Your task to perform on an android device: Open ESPN.com Image 0: 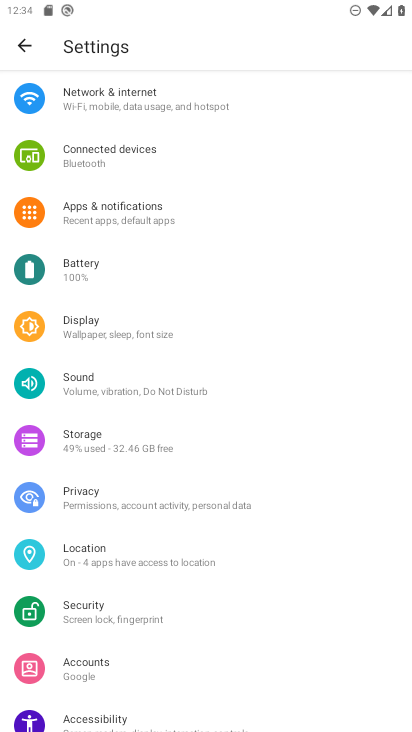
Step 0: press home button
Your task to perform on an android device: Open ESPN.com Image 1: 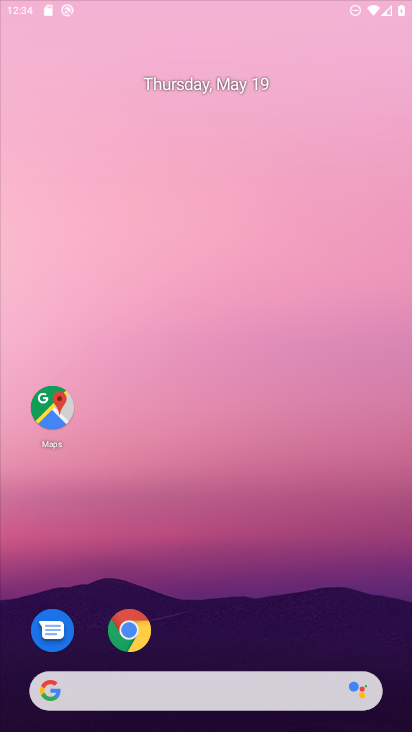
Step 1: drag from (142, 665) to (156, 507)
Your task to perform on an android device: Open ESPN.com Image 2: 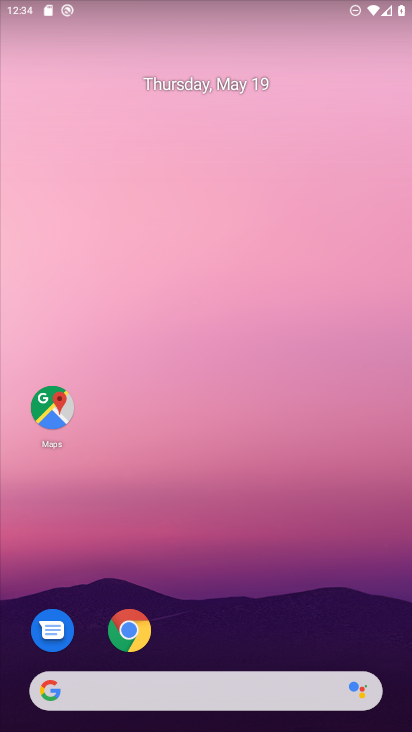
Step 2: drag from (199, 646) to (272, 300)
Your task to perform on an android device: Open ESPN.com Image 3: 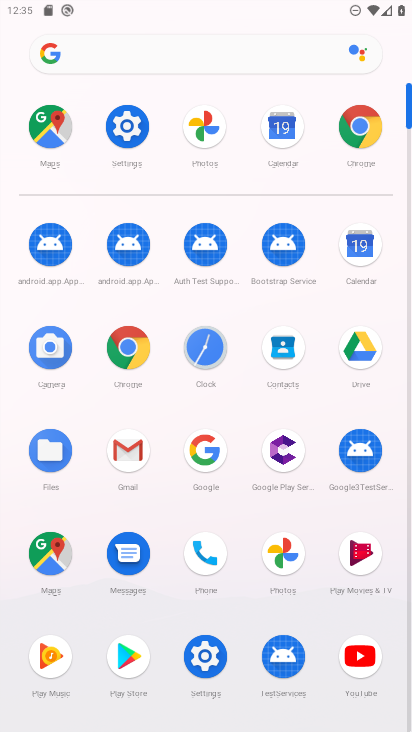
Step 3: click (131, 45)
Your task to perform on an android device: Open ESPN.com Image 4: 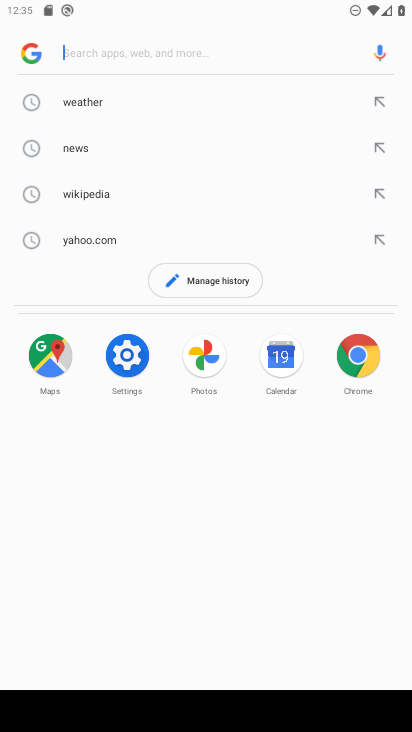
Step 4: click (93, 61)
Your task to perform on an android device: Open ESPN.com Image 5: 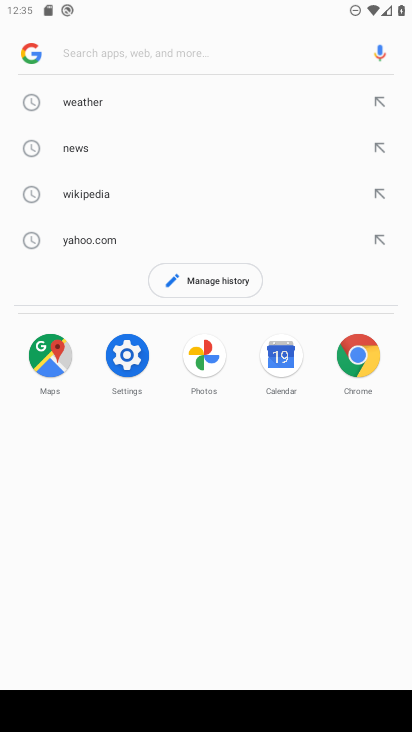
Step 5: type " ESPN.com"
Your task to perform on an android device: Open ESPN.com Image 6: 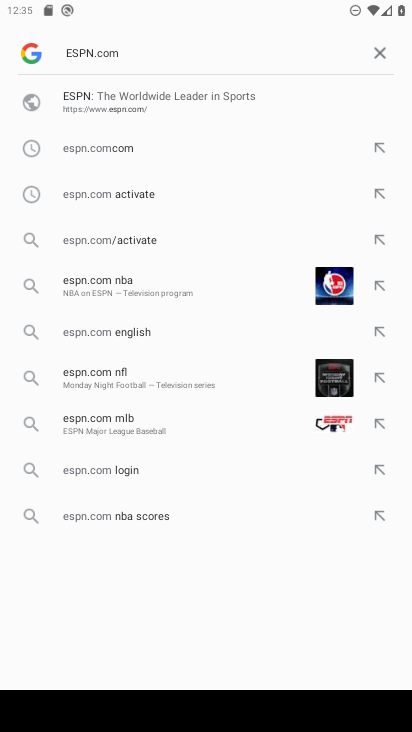
Step 6: click (86, 110)
Your task to perform on an android device: Open ESPN.com Image 7: 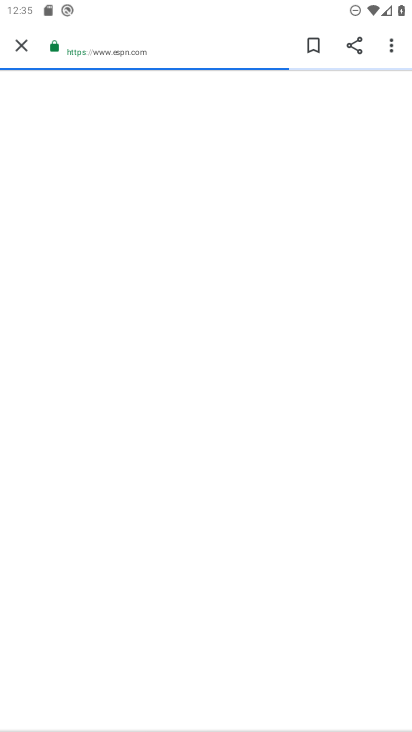
Step 7: task complete